Your task to perform on an android device: Go to wifi settings Image 0: 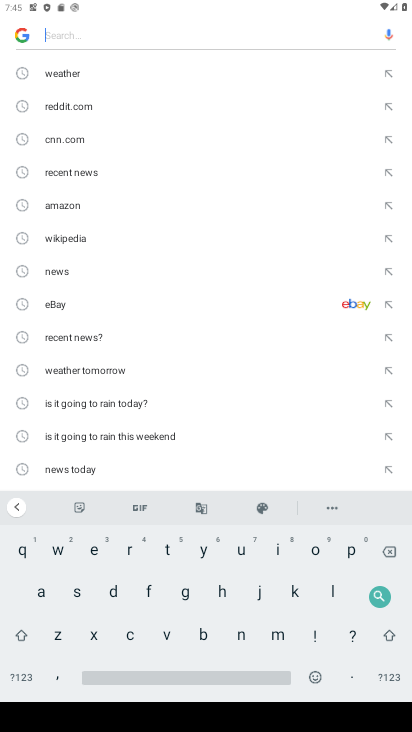
Step 0: press home button
Your task to perform on an android device: Go to wifi settings Image 1: 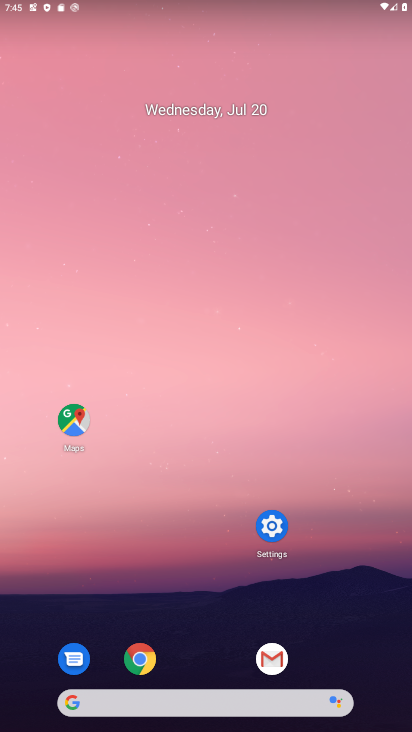
Step 1: click (253, 541)
Your task to perform on an android device: Go to wifi settings Image 2: 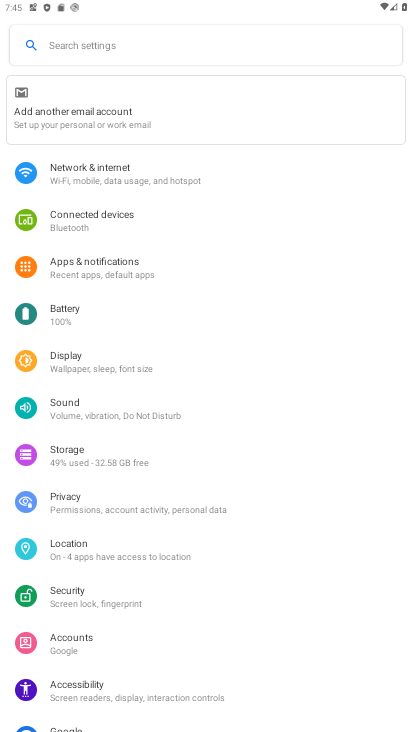
Step 2: click (104, 181)
Your task to perform on an android device: Go to wifi settings Image 3: 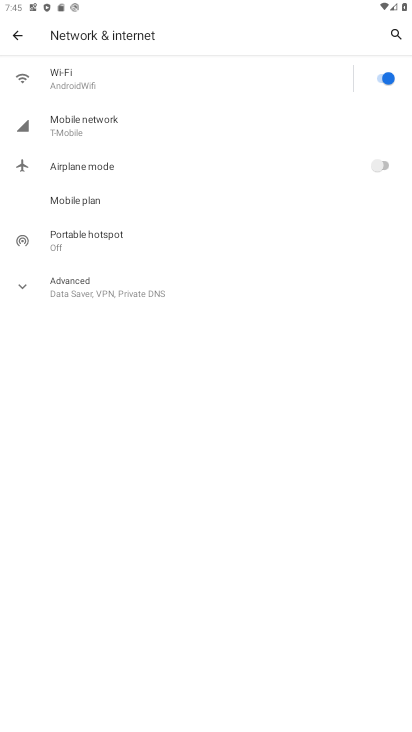
Step 3: click (102, 75)
Your task to perform on an android device: Go to wifi settings Image 4: 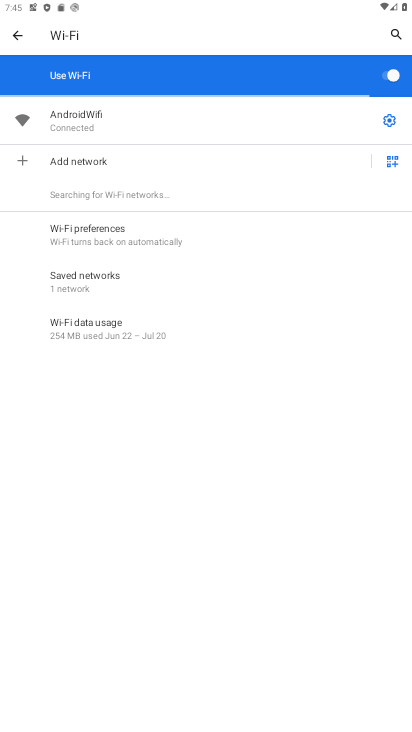
Step 4: task complete